Your task to perform on an android device: turn off location Image 0: 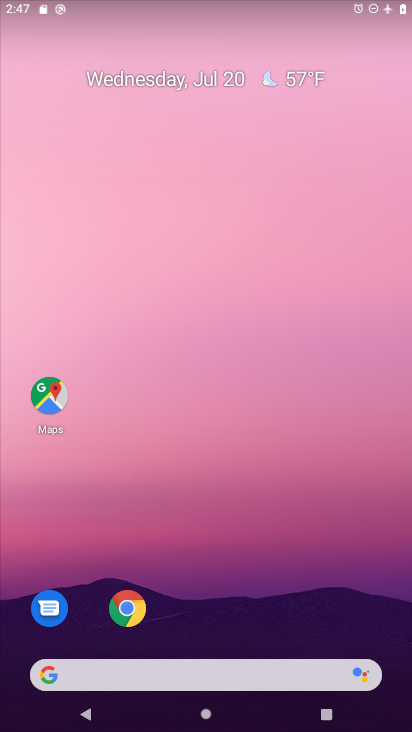
Step 0: drag from (121, 697) to (173, 249)
Your task to perform on an android device: turn off location Image 1: 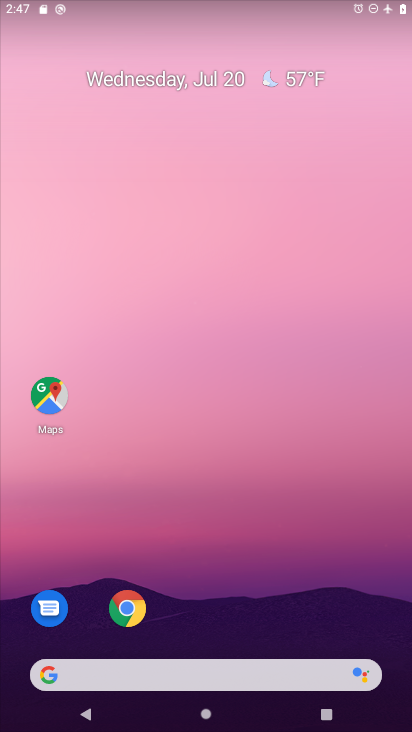
Step 1: drag from (124, 644) to (195, 4)
Your task to perform on an android device: turn off location Image 2: 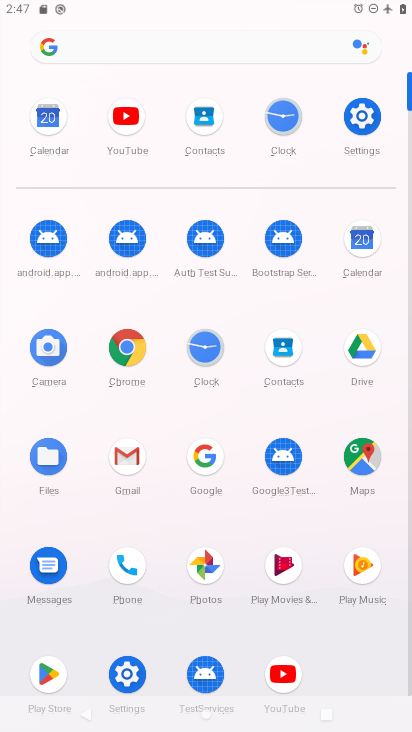
Step 2: click (358, 134)
Your task to perform on an android device: turn off location Image 3: 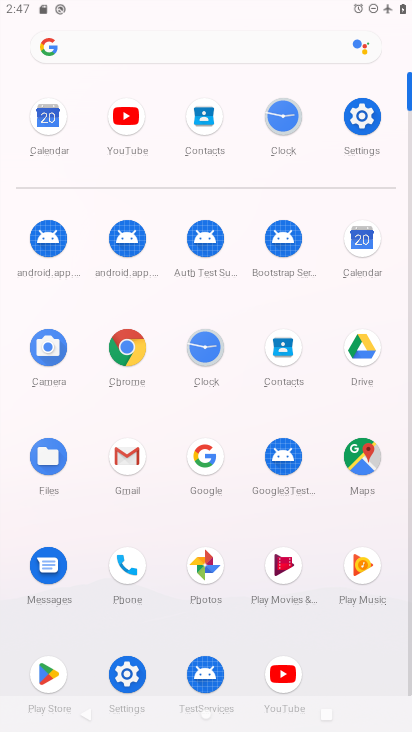
Step 3: click (358, 134)
Your task to perform on an android device: turn off location Image 4: 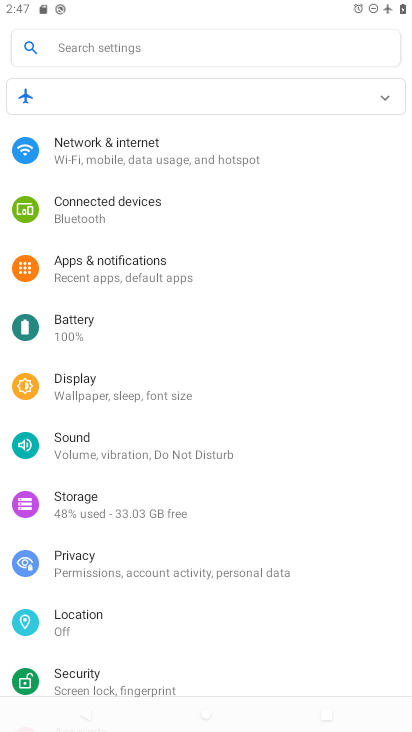
Step 4: click (110, 635)
Your task to perform on an android device: turn off location Image 5: 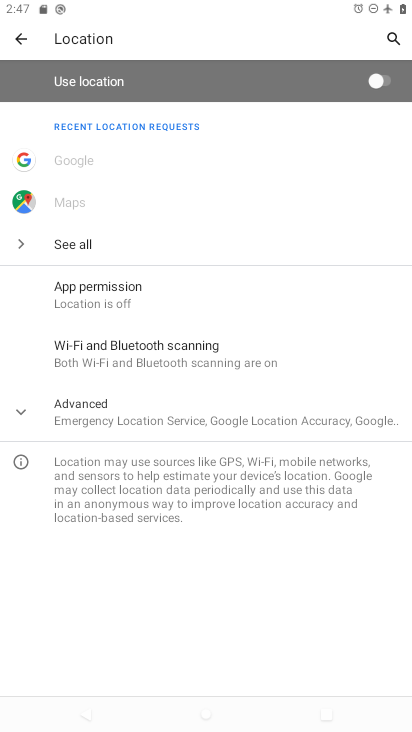
Step 5: task complete